Your task to perform on an android device: Is it going to rain tomorrow? Image 0: 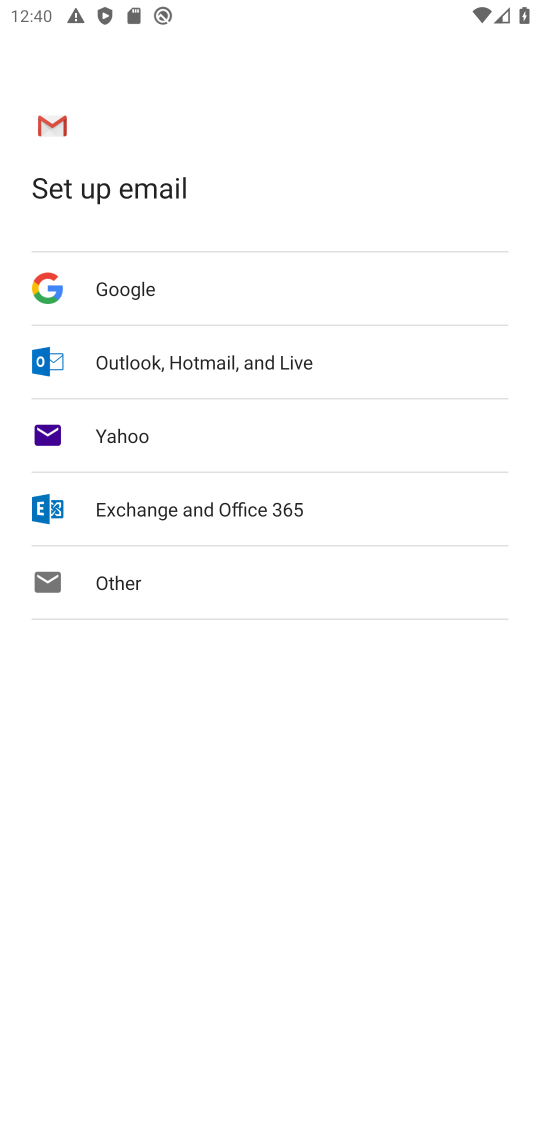
Step 0: press home button
Your task to perform on an android device: Is it going to rain tomorrow? Image 1: 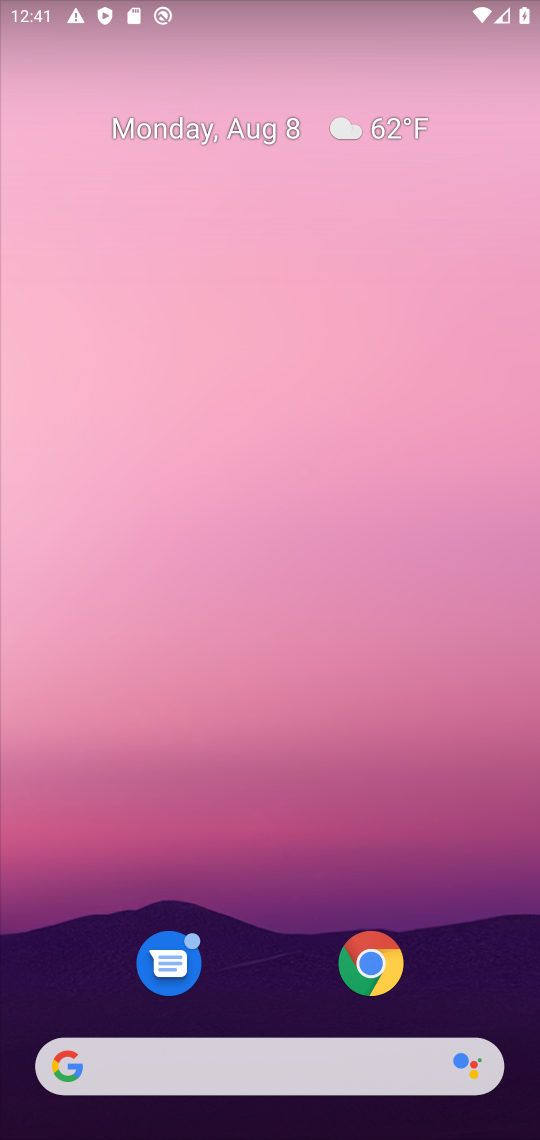
Step 1: drag from (465, 947) to (194, 75)
Your task to perform on an android device: Is it going to rain tomorrow? Image 2: 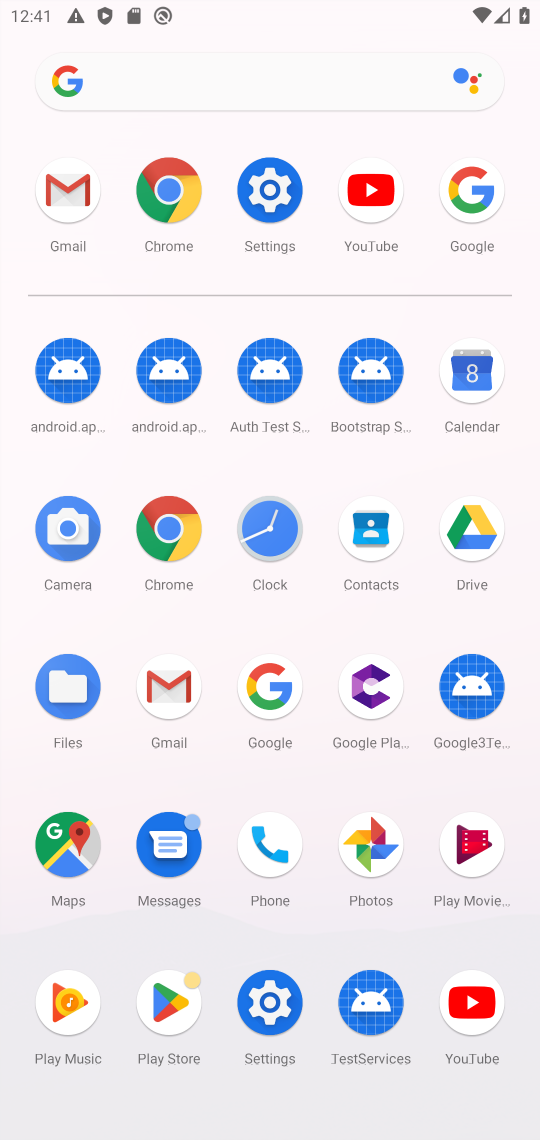
Step 2: click (263, 669)
Your task to perform on an android device: Is it going to rain tomorrow? Image 3: 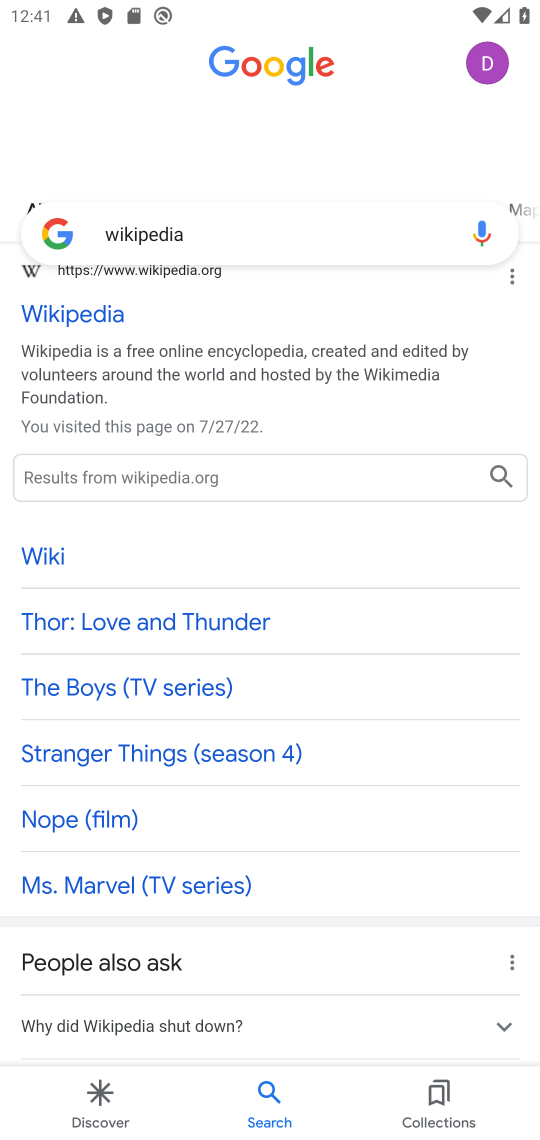
Step 3: press back button
Your task to perform on an android device: Is it going to rain tomorrow? Image 4: 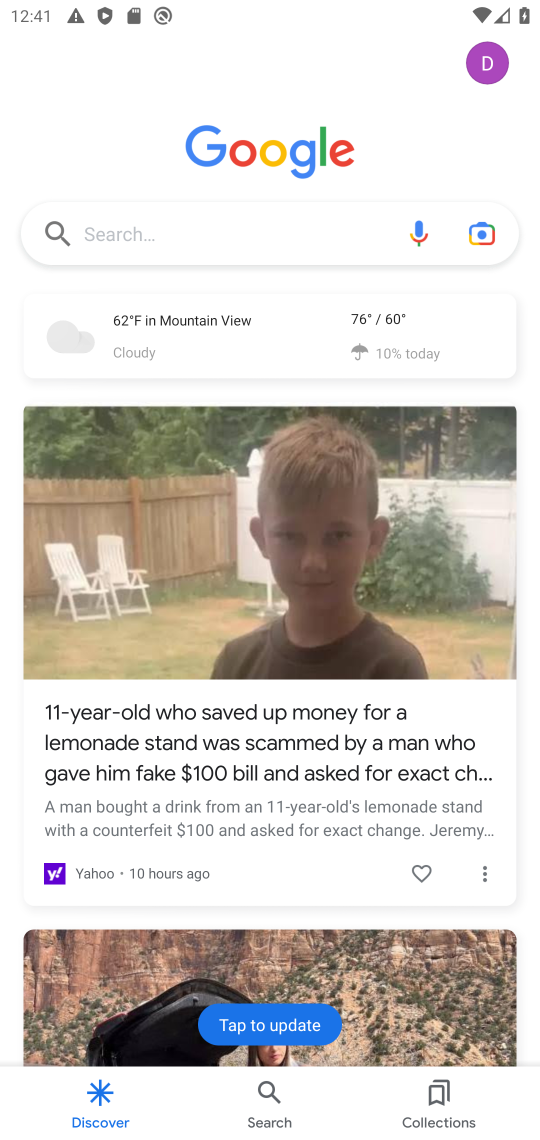
Step 4: click (158, 224)
Your task to perform on an android device: Is it going to rain tomorrow? Image 5: 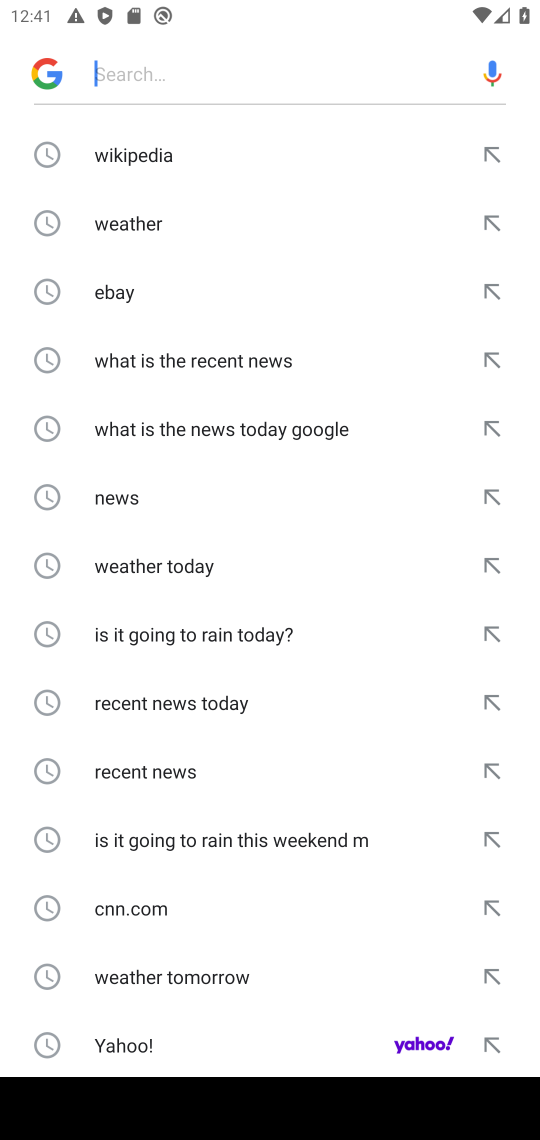
Step 5: type "Is it going to rain tomorrow?"
Your task to perform on an android device: Is it going to rain tomorrow? Image 6: 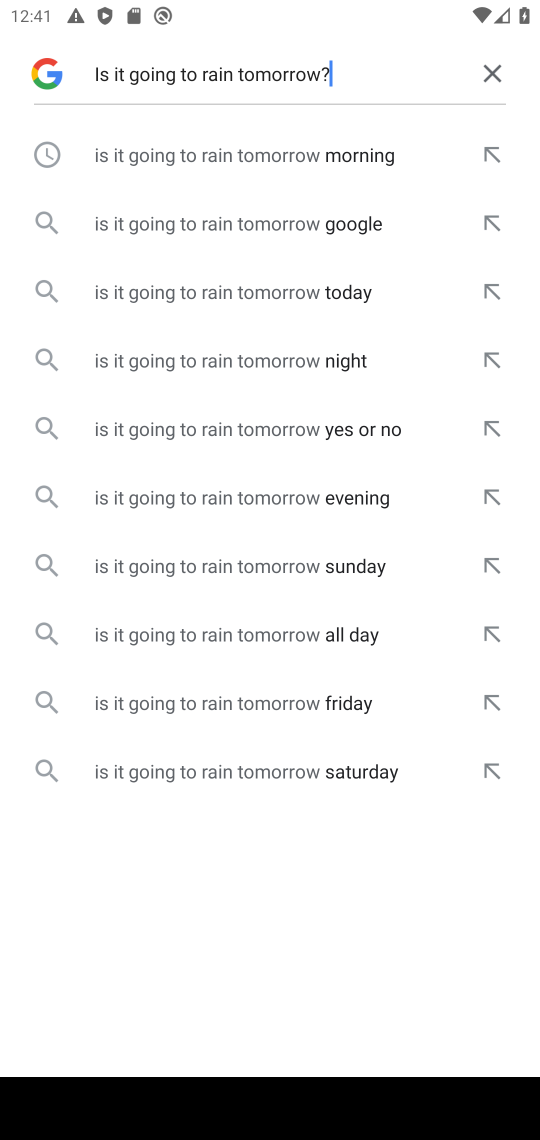
Step 6: task complete